Your task to perform on an android device: uninstall "NewsBreak: Local News & Alerts" Image 0: 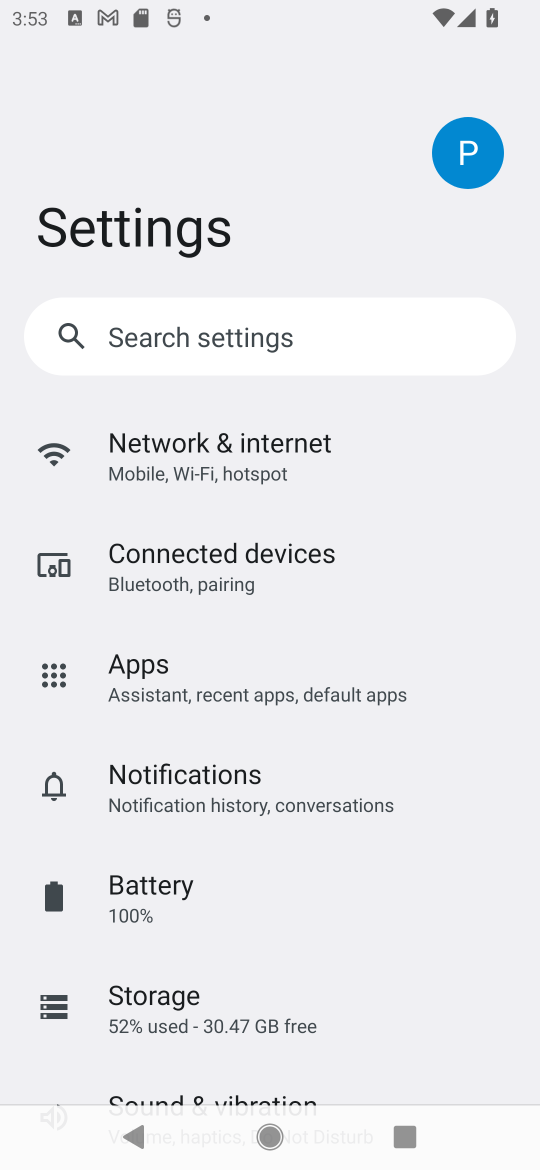
Step 0: press home button
Your task to perform on an android device: uninstall "NewsBreak: Local News & Alerts" Image 1: 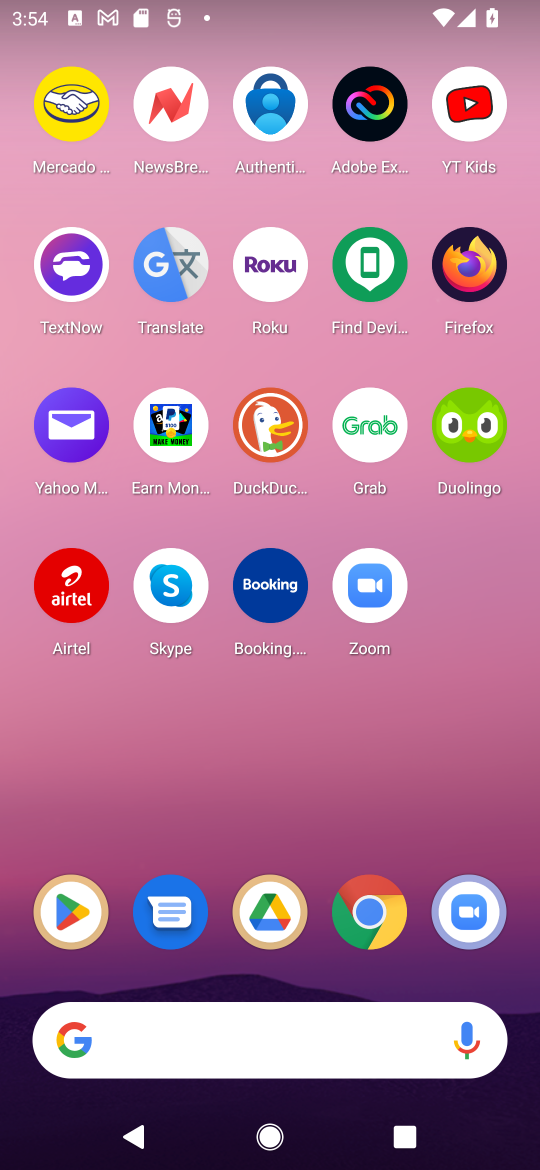
Step 1: click (70, 919)
Your task to perform on an android device: uninstall "NewsBreak: Local News & Alerts" Image 2: 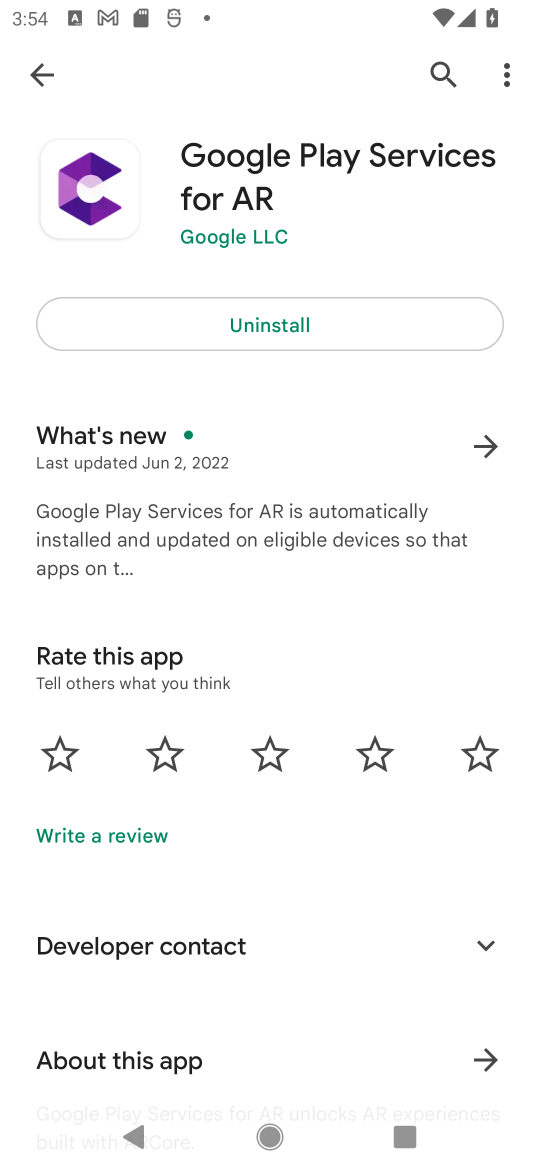
Step 2: click (441, 67)
Your task to perform on an android device: uninstall "NewsBreak: Local News & Alerts" Image 3: 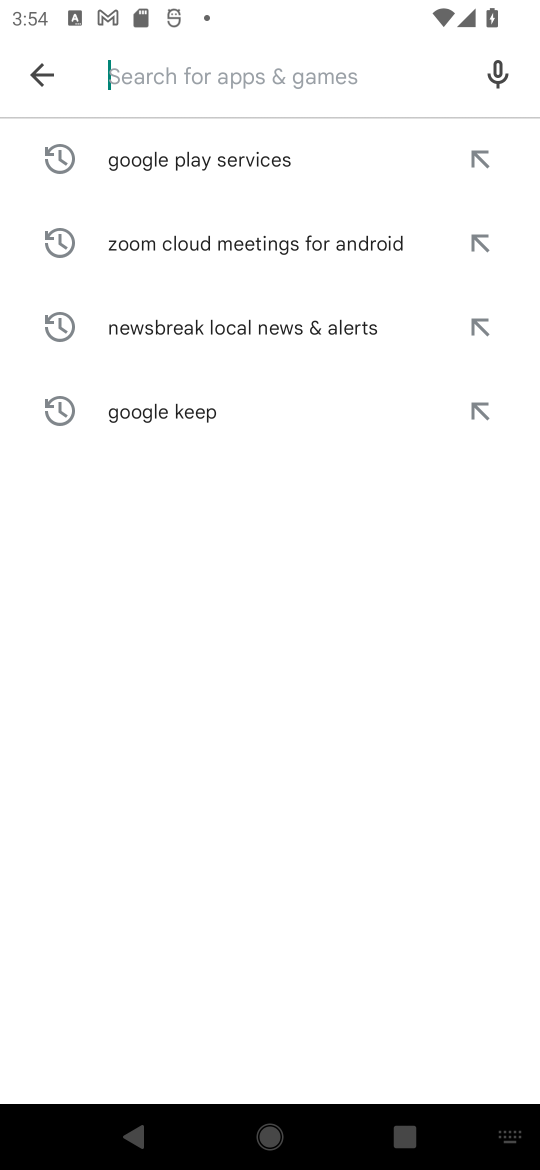
Step 3: type "NewsBreak: Local News & Alerts"
Your task to perform on an android device: uninstall "NewsBreak: Local News & Alerts" Image 4: 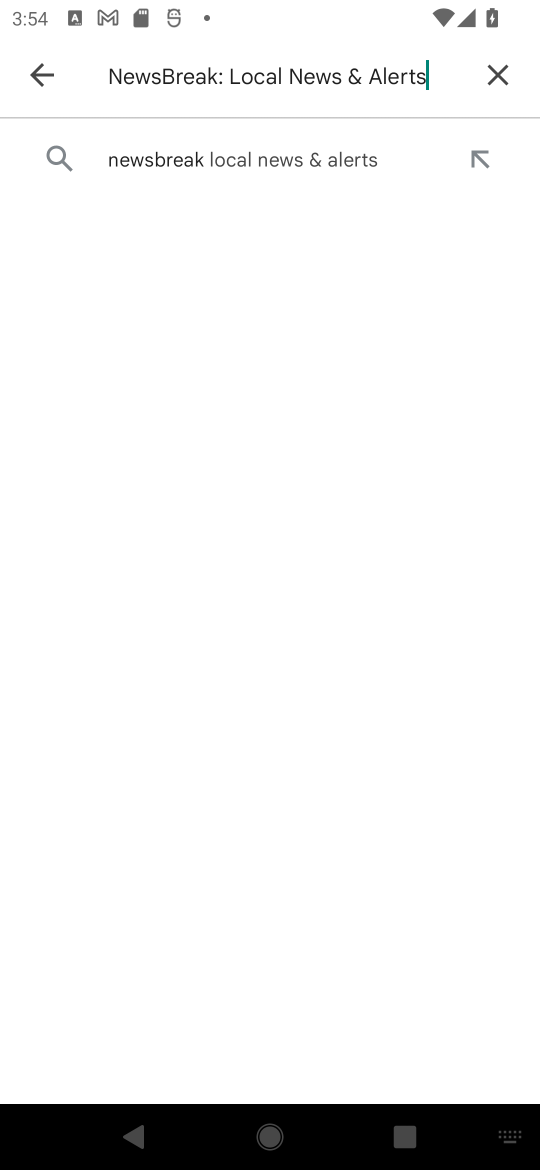
Step 4: click (204, 166)
Your task to perform on an android device: uninstall "NewsBreak: Local News & Alerts" Image 5: 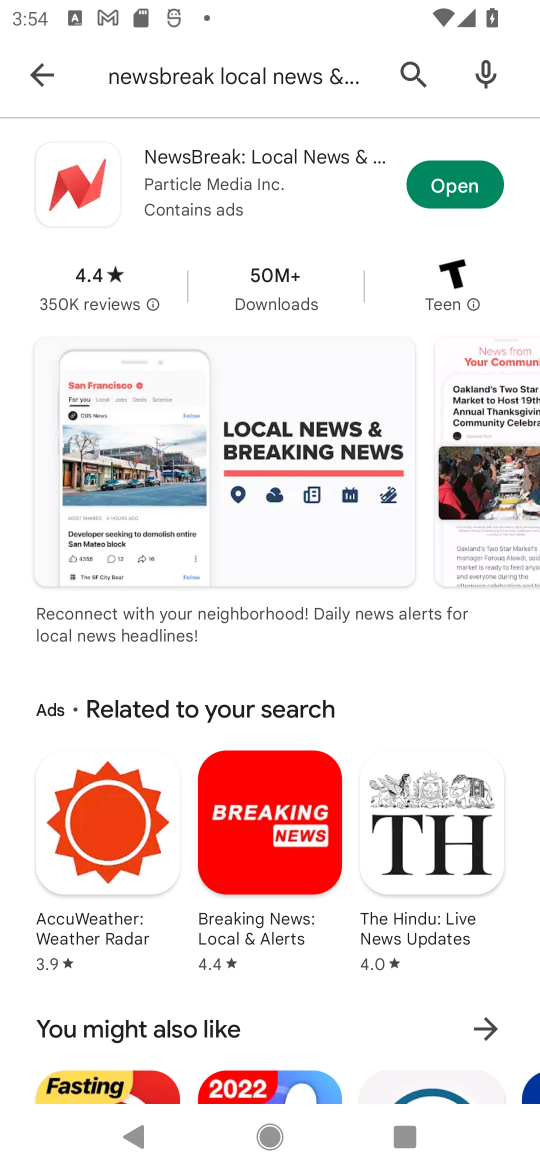
Step 5: click (172, 175)
Your task to perform on an android device: uninstall "NewsBreak: Local News & Alerts" Image 6: 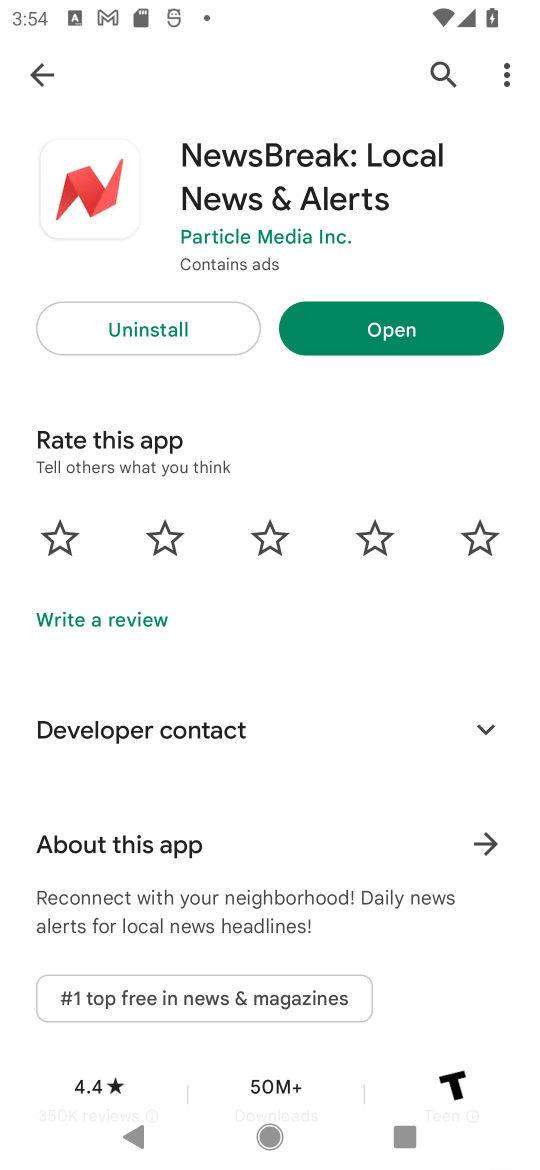
Step 6: click (163, 337)
Your task to perform on an android device: uninstall "NewsBreak: Local News & Alerts" Image 7: 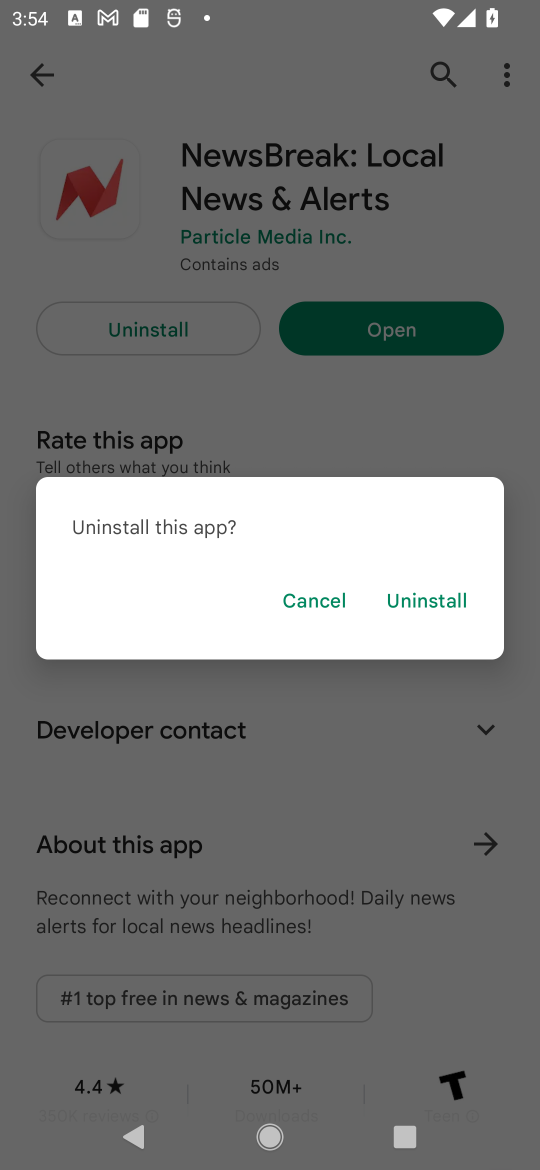
Step 7: click (404, 603)
Your task to perform on an android device: uninstall "NewsBreak: Local News & Alerts" Image 8: 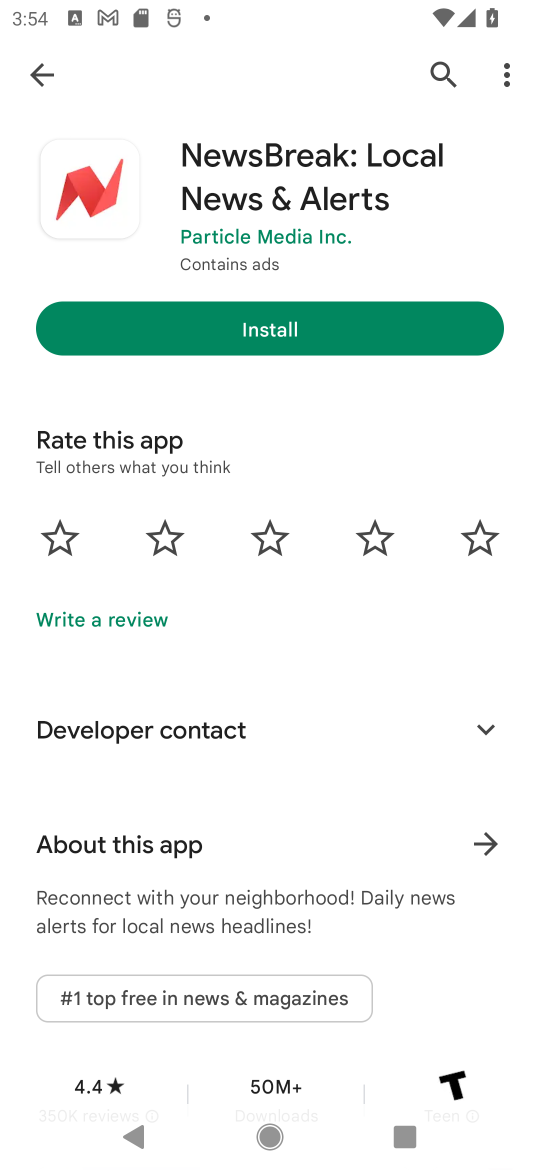
Step 8: task complete